Your task to perform on an android device: toggle notification dots Image 0: 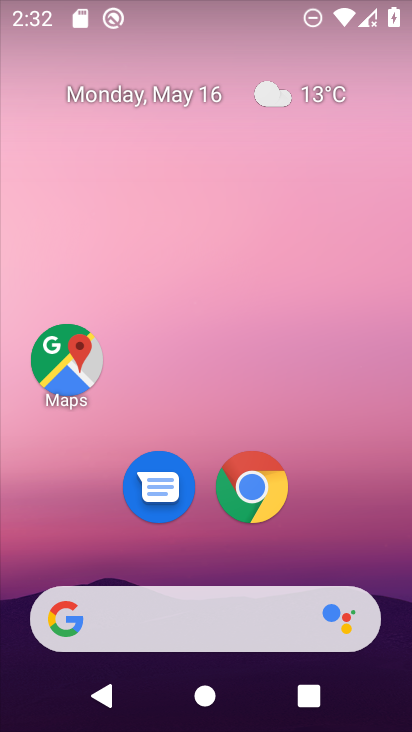
Step 0: drag from (396, 599) to (379, 409)
Your task to perform on an android device: toggle notification dots Image 1: 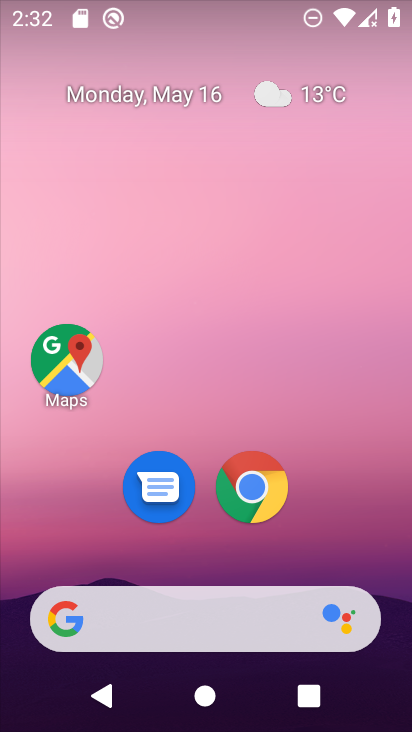
Step 1: drag from (405, 618) to (410, 159)
Your task to perform on an android device: toggle notification dots Image 2: 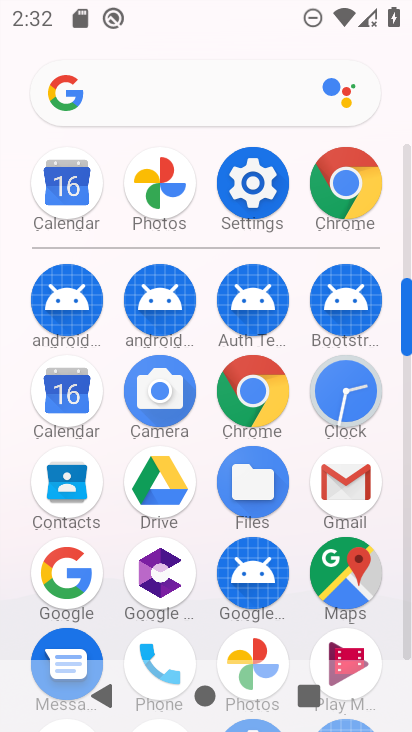
Step 2: click (245, 189)
Your task to perform on an android device: toggle notification dots Image 3: 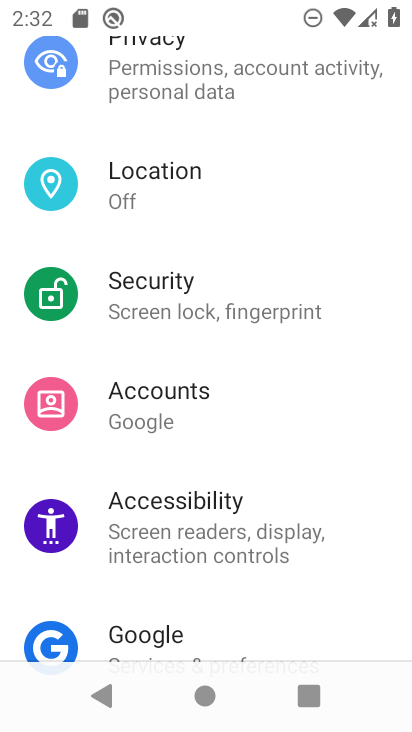
Step 3: drag from (317, 149) to (390, 457)
Your task to perform on an android device: toggle notification dots Image 4: 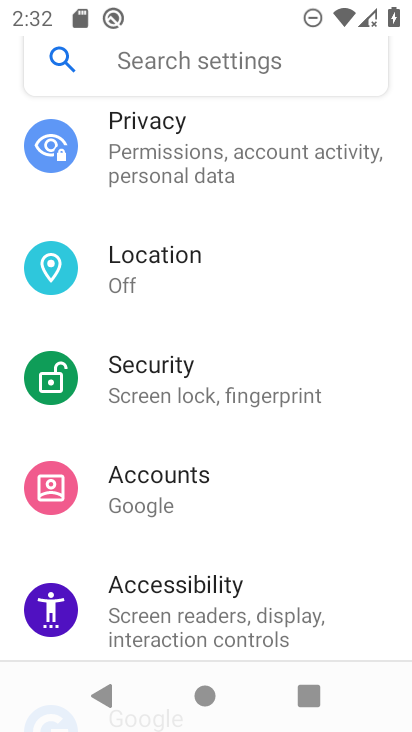
Step 4: drag from (319, 175) to (353, 598)
Your task to perform on an android device: toggle notification dots Image 5: 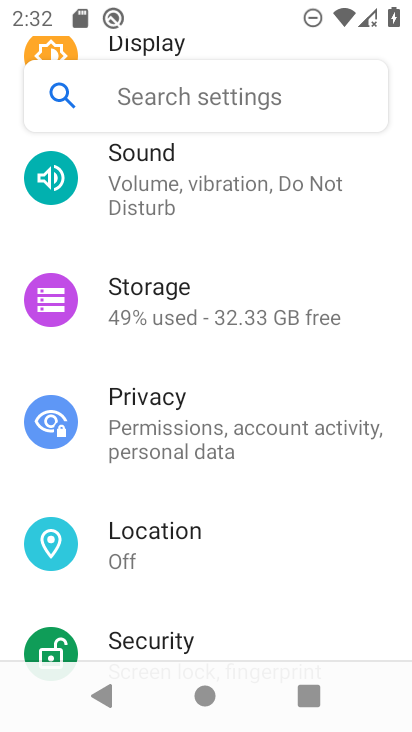
Step 5: drag from (302, 180) to (359, 584)
Your task to perform on an android device: toggle notification dots Image 6: 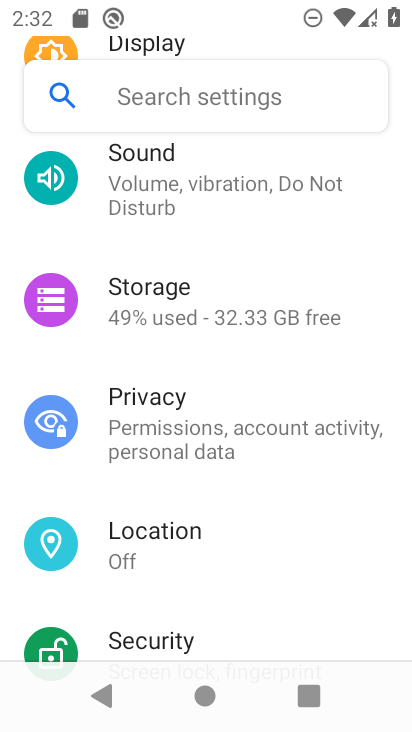
Step 6: drag from (311, 176) to (352, 489)
Your task to perform on an android device: toggle notification dots Image 7: 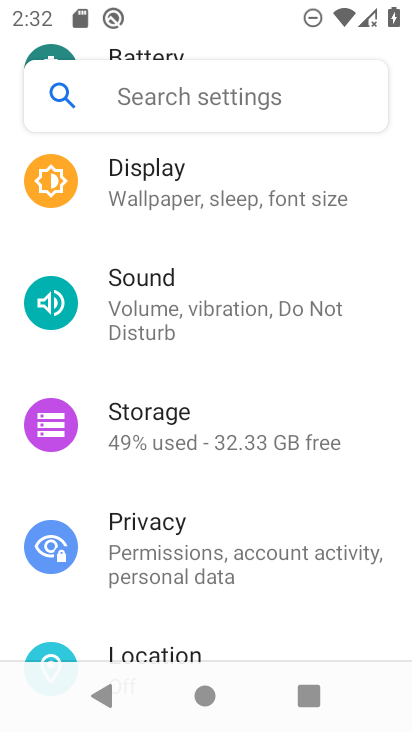
Step 7: drag from (386, 158) to (409, 592)
Your task to perform on an android device: toggle notification dots Image 8: 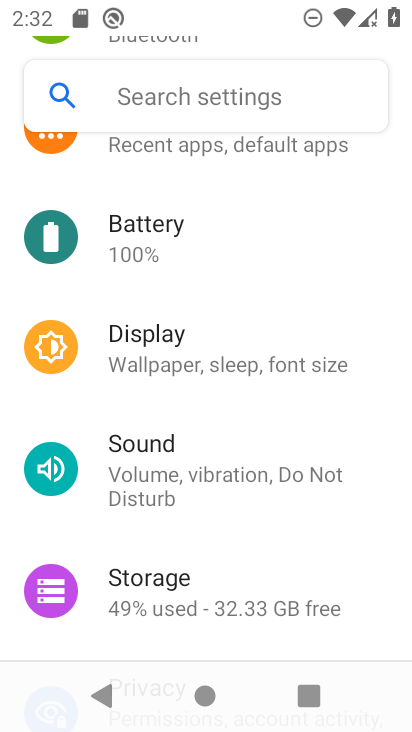
Step 8: drag from (368, 253) to (364, 462)
Your task to perform on an android device: toggle notification dots Image 9: 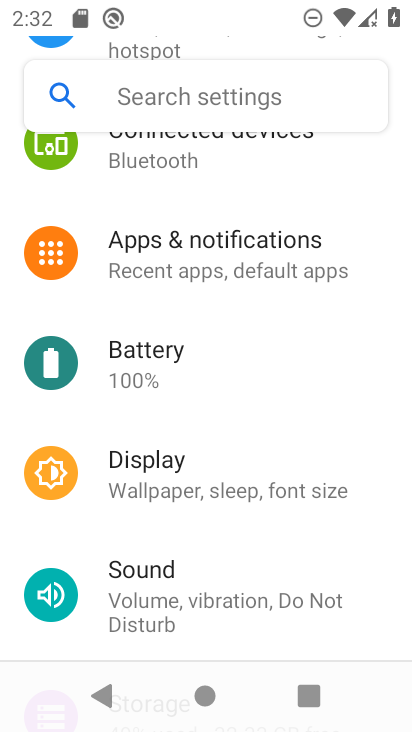
Step 9: click (198, 240)
Your task to perform on an android device: toggle notification dots Image 10: 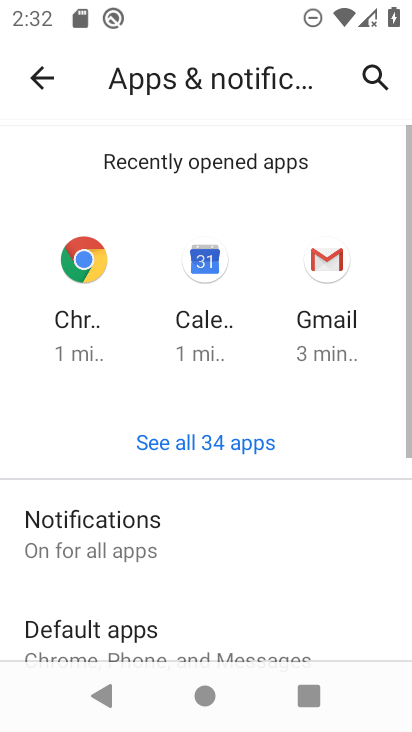
Step 10: click (100, 533)
Your task to perform on an android device: toggle notification dots Image 11: 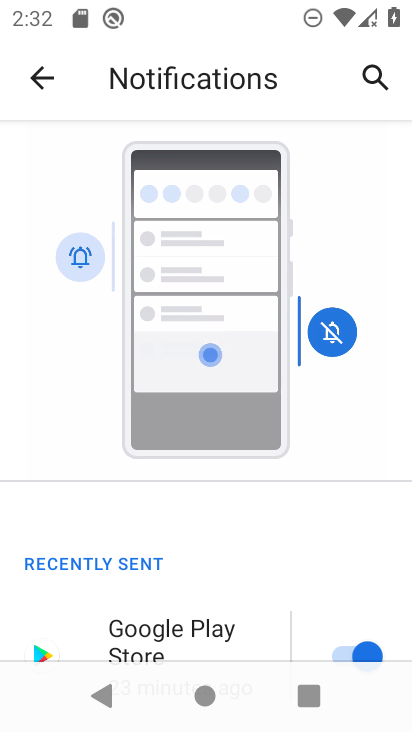
Step 11: drag from (280, 605) to (276, 185)
Your task to perform on an android device: toggle notification dots Image 12: 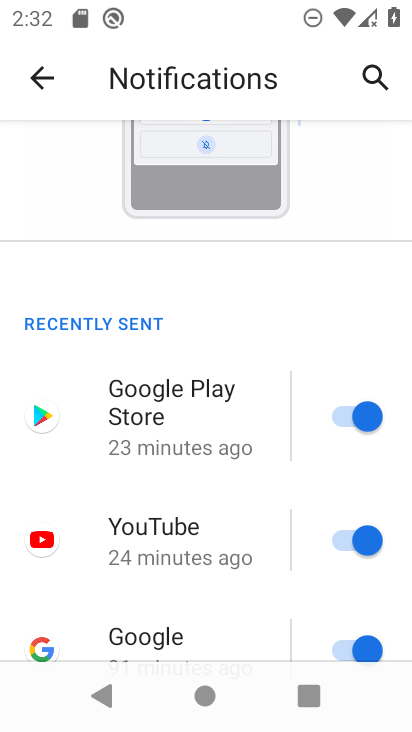
Step 12: drag from (255, 646) to (229, 272)
Your task to perform on an android device: toggle notification dots Image 13: 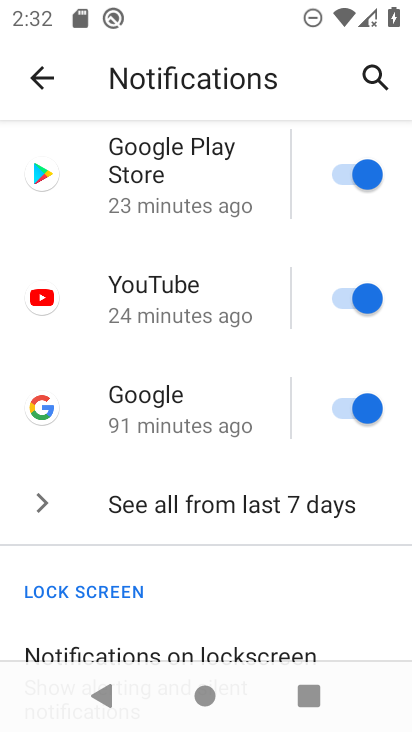
Step 13: drag from (253, 613) to (260, 280)
Your task to perform on an android device: toggle notification dots Image 14: 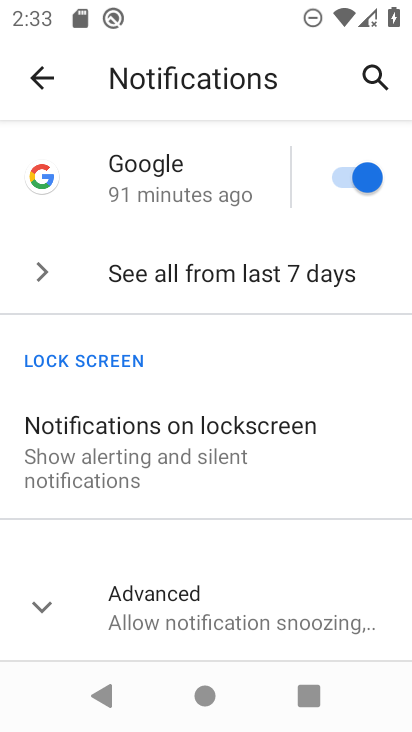
Step 14: click (40, 613)
Your task to perform on an android device: toggle notification dots Image 15: 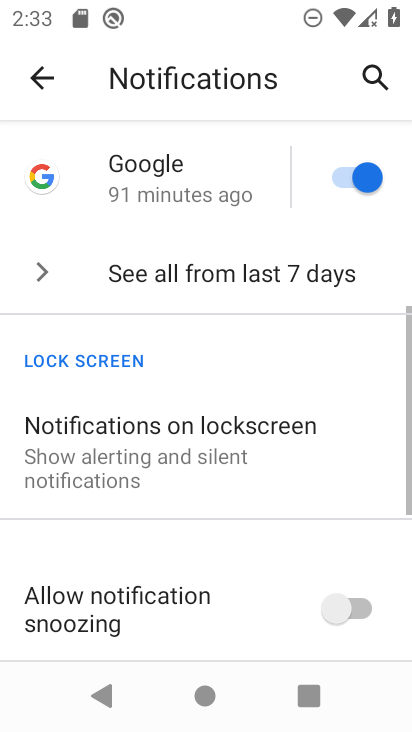
Step 15: drag from (272, 594) to (311, 264)
Your task to perform on an android device: toggle notification dots Image 16: 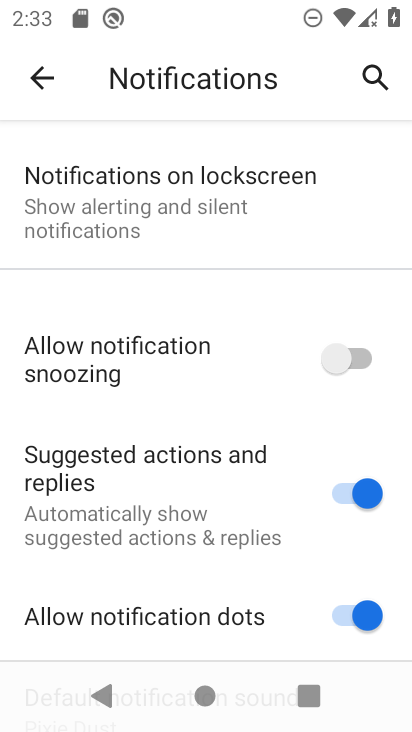
Step 16: drag from (260, 610) to (247, 312)
Your task to perform on an android device: toggle notification dots Image 17: 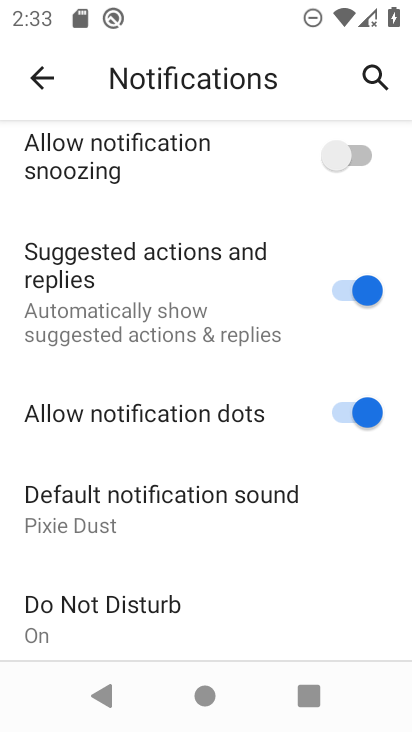
Step 17: click (333, 415)
Your task to perform on an android device: toggle notification dots Image 18: 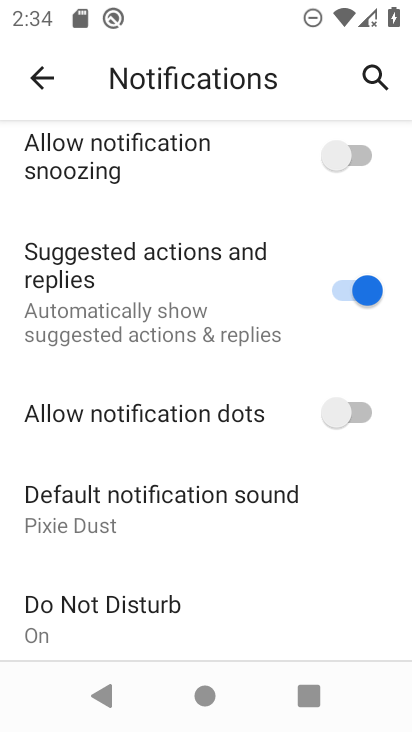
Step 18: task complete